Your task to perform on an android device: Open calendar and show me the third week of next month Image 0: 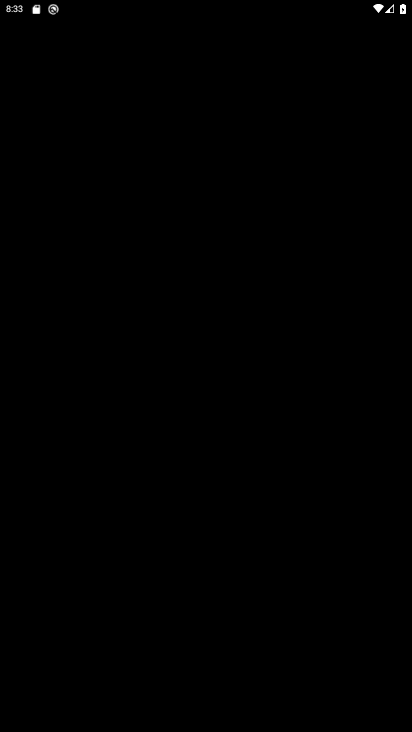
Step 0: press home button
Your task to perform on an android device: Open calendar and show me the third week of next month Image 1: 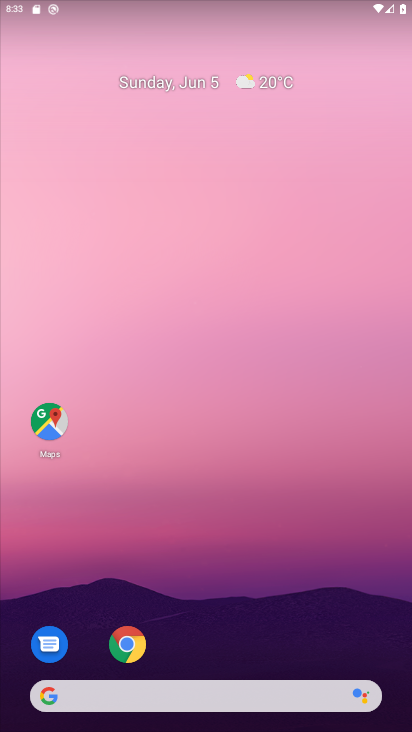
Step 1: drag from (275, 573) to (280, 294)
Your task to perform on an android device: Open calendar and show me the third week of next month Image 2: 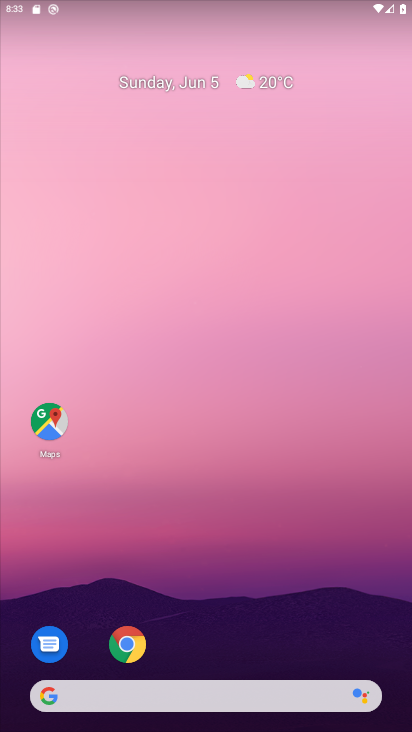
Step 2: drag from (309, 597) to (305, 298)
Your task to perform on an android device: Open calendar and show me the third week of next month Image 3: 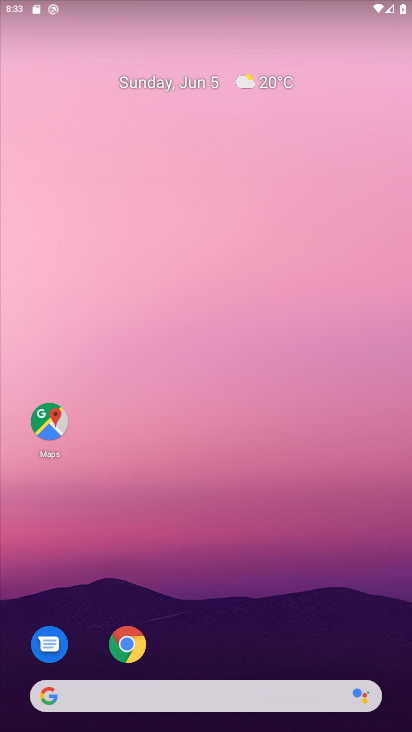
Step 3: drag from (288, 587) to (272, 85)
Your task to perform on an android device: Open calendar and show me the third week of next month Image 4: 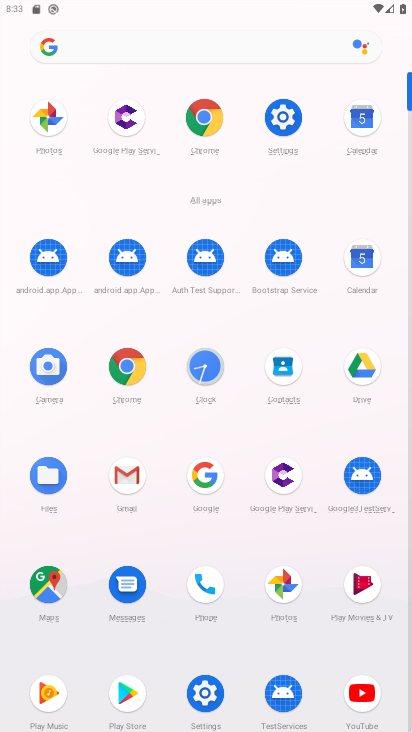
Step 4: click (359, 266)
Your task to perform on an android device: Open calendar and show me the third week of next month Image 5: 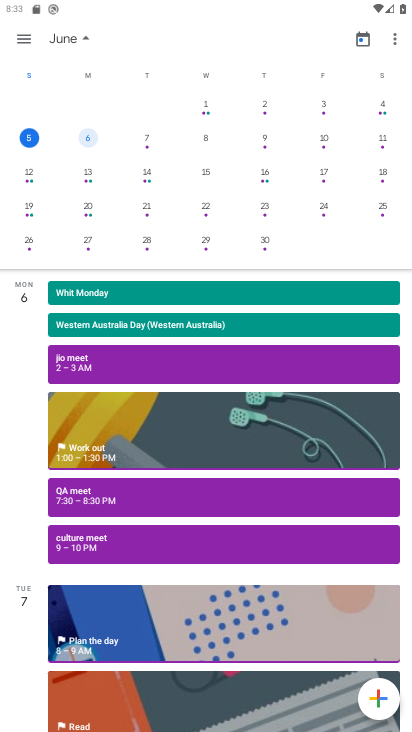
Step 5: click (31, 171)
Your task to perform on an android device: Open calendar and show me the third week of next month Image 6: 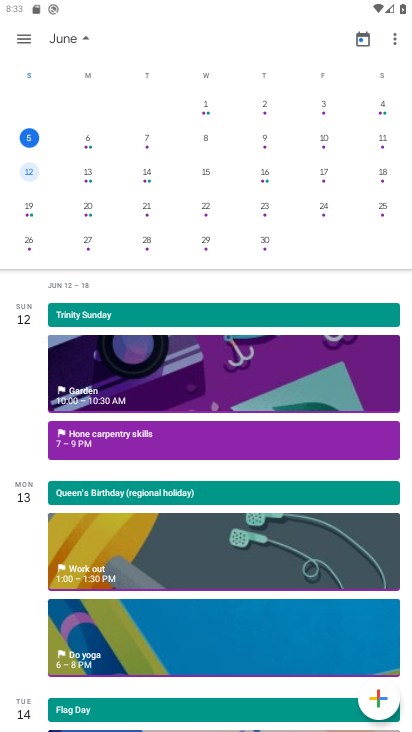
Step 6: task complete